Your task to perform on an android device: delete browsing data in the chrome app Image 0: 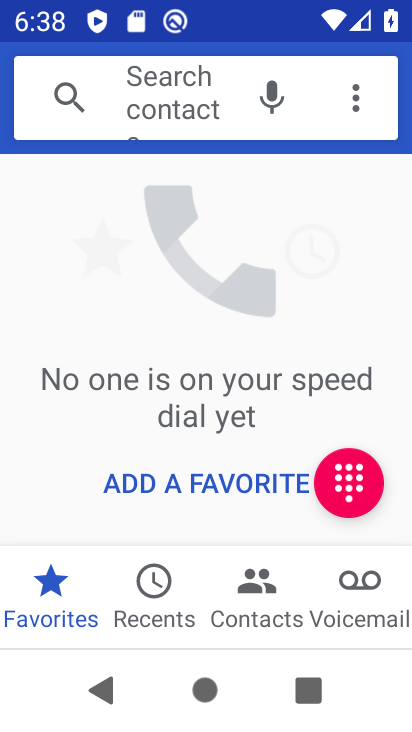
Step 0: press home button
Your task to perform on an android device: delete browsing data in the chrome app Image 1: 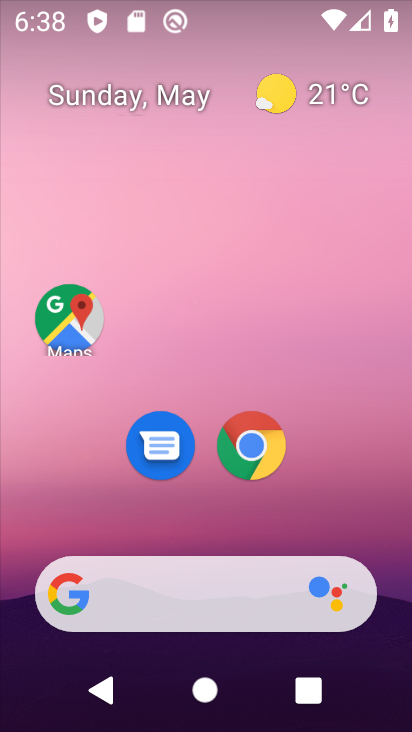
Step 1: click (244, 447)
Your task to perform on an android device: delete browsing data in the chrome app Image 2: 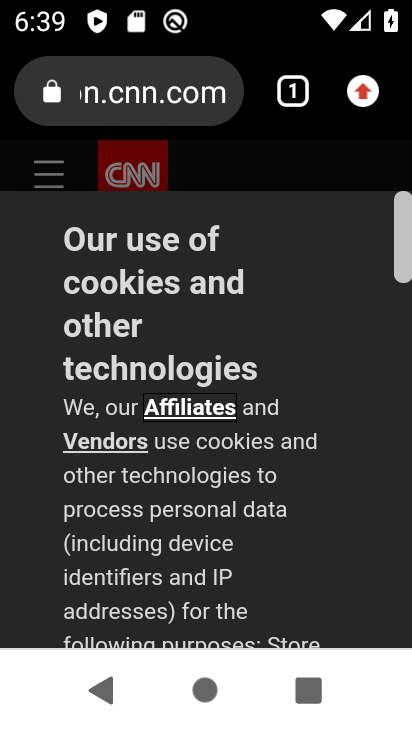
Step 2: click (356, 89)
Your task to perform on an android device: delete browsing data in the chrome app Image 3: 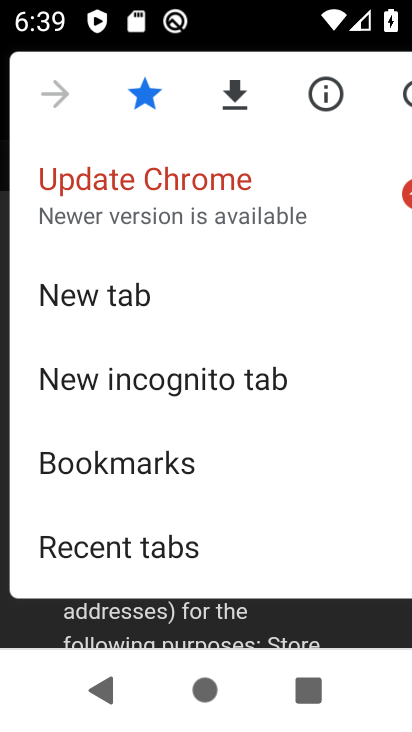
Step 3: drag from (239, 481) to (205, 244)
Your task to perform on an android device: delete browsing data in the chrome app Image 4: 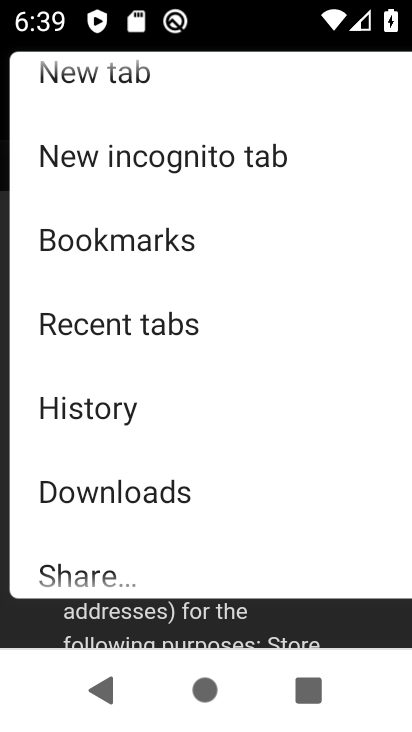
Step 4: click (106, 410)
Your task to perform on an android device: delete browsing data in the chrome app Image 5: 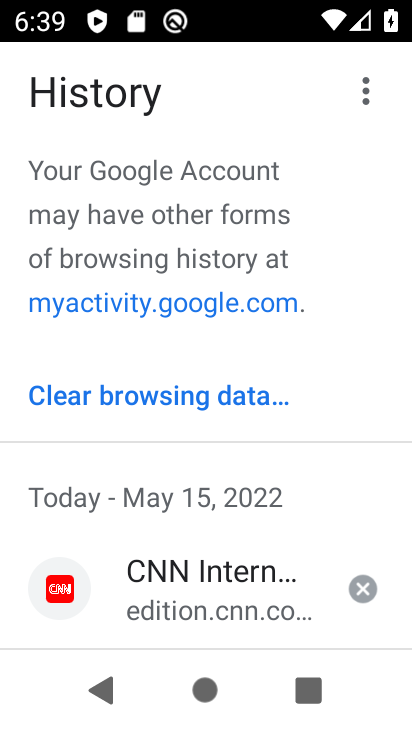
Step 5: click (153, 395)
Your task to perform on an android device: delete browsing data in the chrome app Image 6: 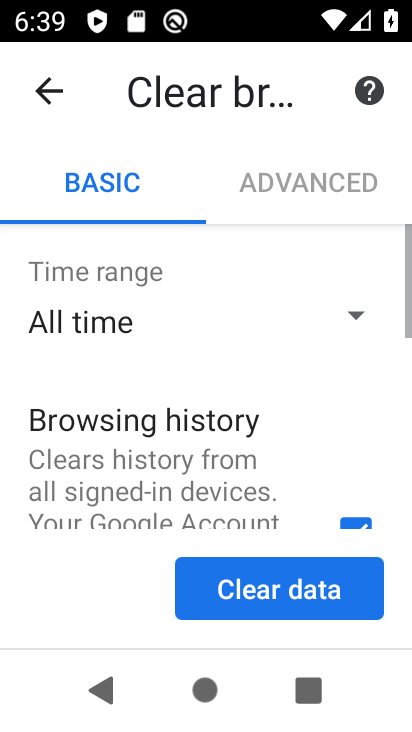
Step 6: click (284, 586)
Your task to perform on an android device: delete browsing data in the chrome app Image 7: 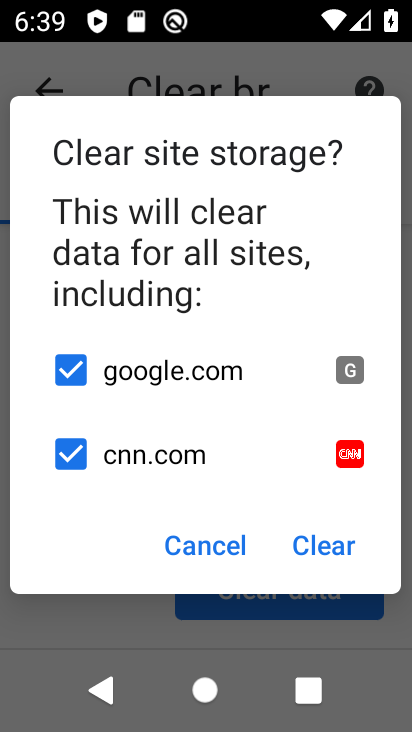
Step 7: click (312, 544)
Your task to perform on an android device: delete browsing data in the chrome app Image 8: 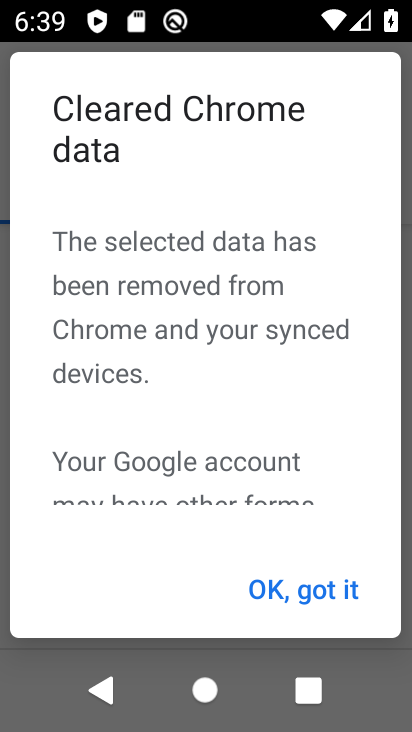
Step 8: click (316, 572)
Your task to perform on an android device: delete browsing data in the chrome app Image 9: 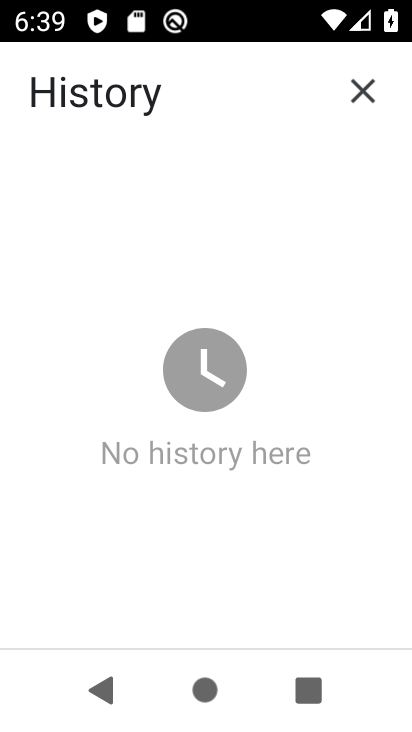
Step 9: task complete